Your task to perform on an android device: What is the recent news? Image 0: 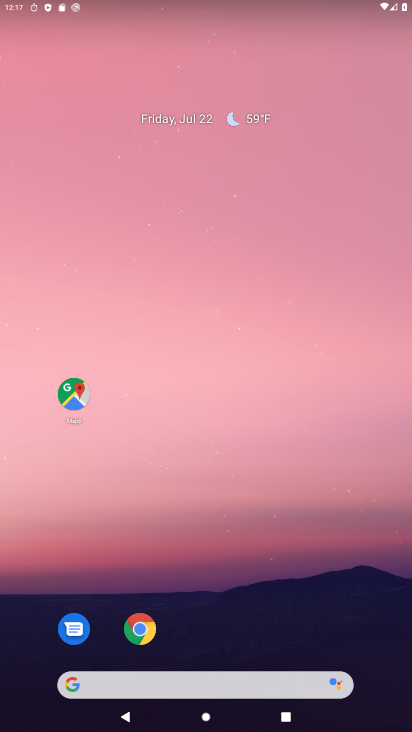
Step 0: drag from (308, 648) to (373, 37)
Your task to perform on an android device: What is the recent news? Image 1: 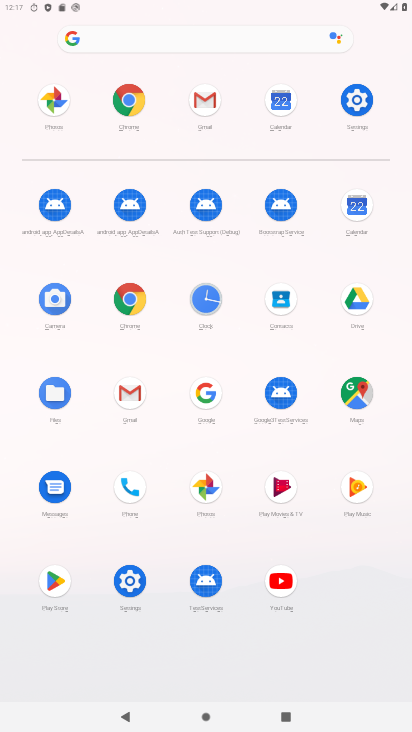
Step 1: click (129, 306)
Your task to perform on an android device: What is the recent news? Image 2: 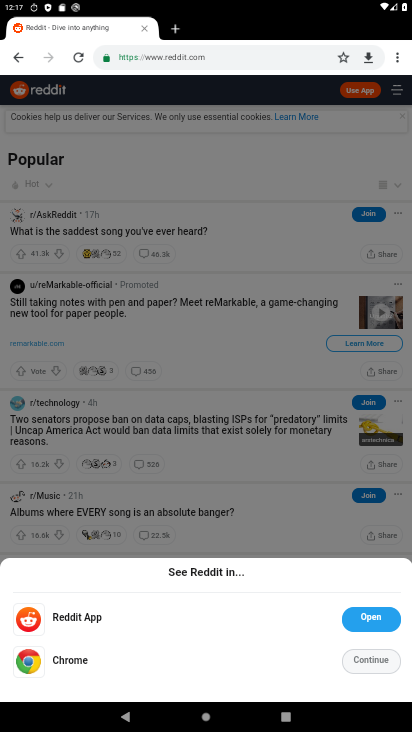
Step 2: click (196, 64)
Your task to perform on an android device: What is the recent news? Image 3: 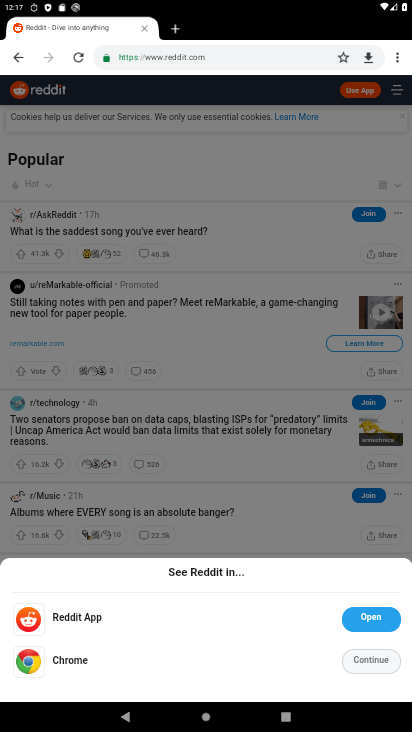
Step 3: click (196, 64)
Your task to perform on an android device: What is the recent news? Image 4: 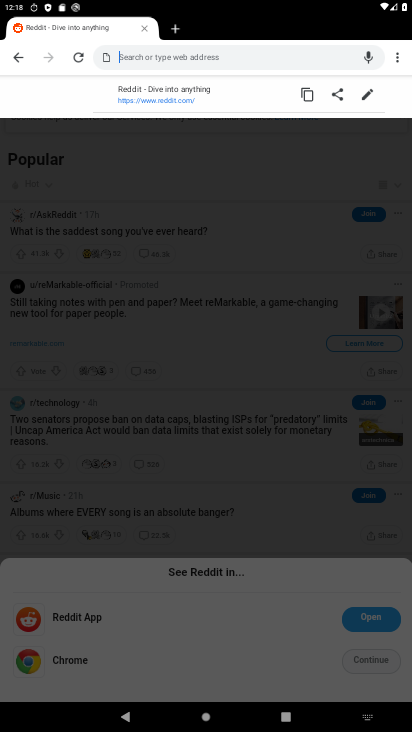
Step 4: type "recent news"
Your task to perform on an android device: What is the recent news? Image 5: 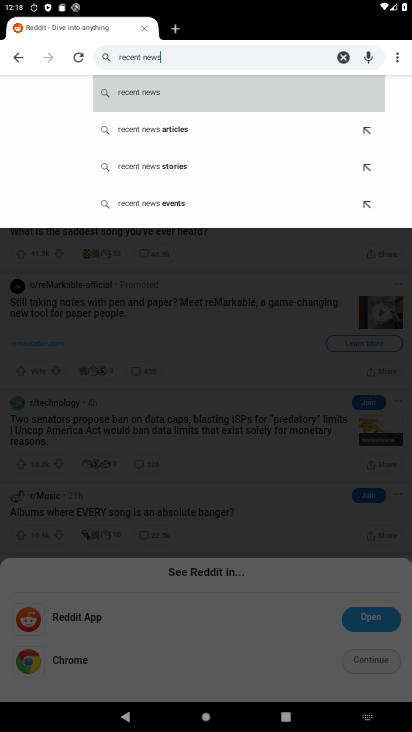
Step 5: click (275, 79)
Your task to perform on an android device: What is the recent news? Image 6: 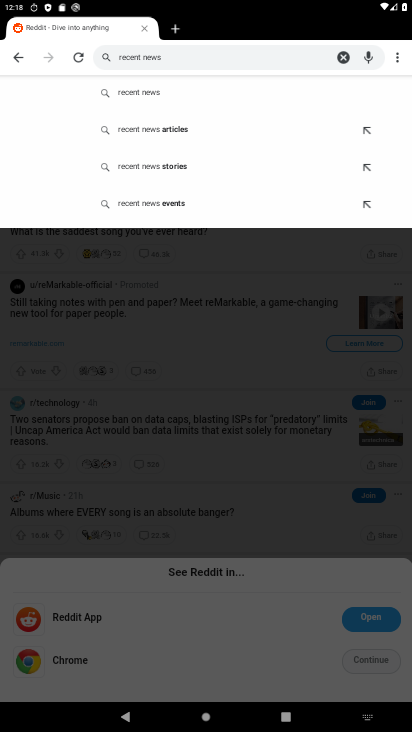
Step 6: click (157, 90)
Your task to perform on an android device: What is the recent news? Image 7: 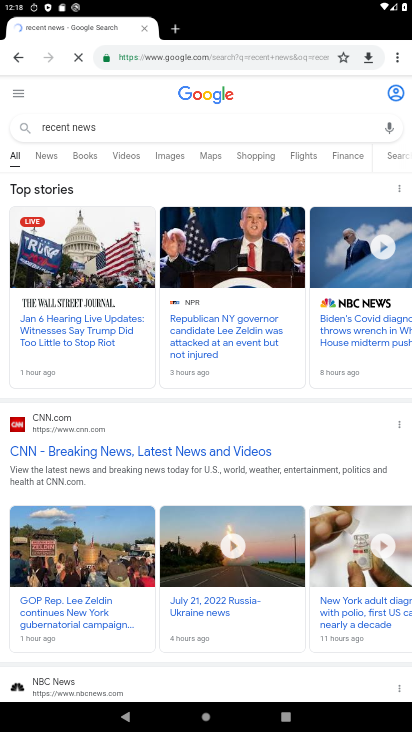
Step 7: task complete